Your task to perform on an android device: Show me productivity apps on the Play Store Image 0: 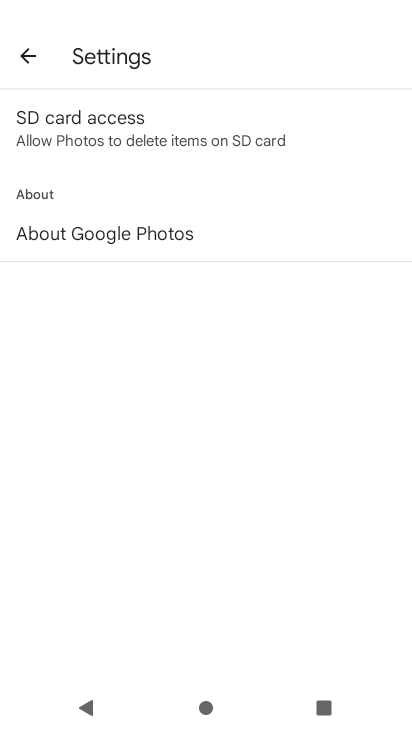
Step 0: press home button
Your task to perform on an android device: Show me productivity apps on the Play Store Image 1: 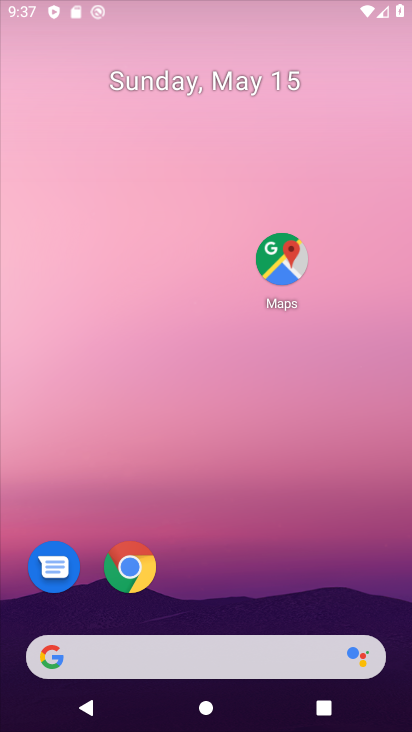
Step 1: drag from (299, 580) to (300, 84)
Your task to perform on an android device: Show me productivity apps on the Play Store Image 2: 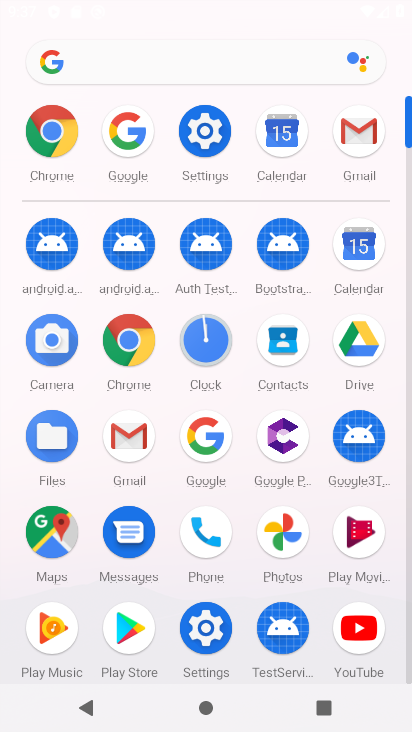
Step 2: click (129, 632)
Your task to perform on an android device: Show me productivity apps on the Play Store Image 3: 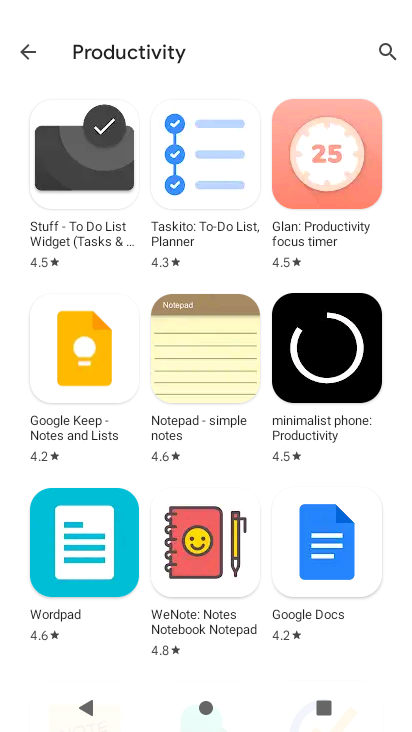
Step 3: task complete